Your task to perform on an android device: Open Youtube and go to the subscriptions tab Image 0: 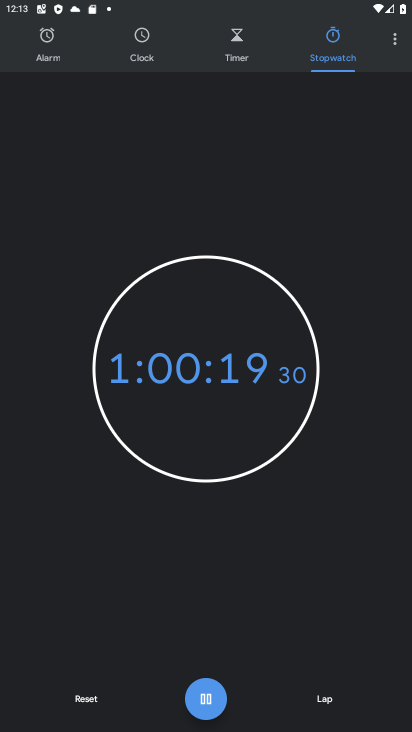
Step 0: press home button
Your task to perform on an android device: Open Youtube and go to the subscriptions tab Image 1: 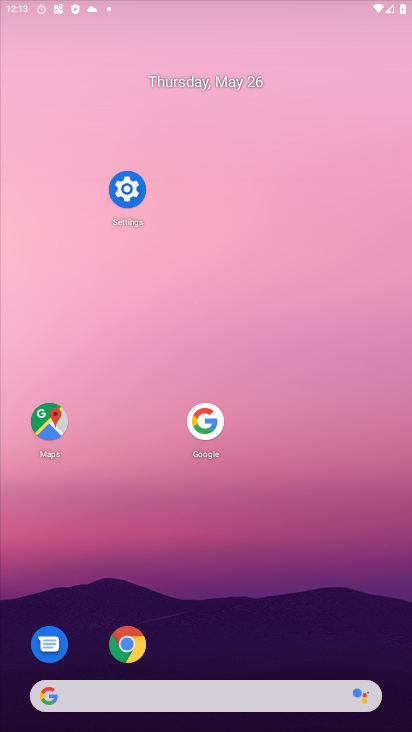
Step 1: drag from (236, 607) to (344, 74)
Your task to perform on an android device: Open Youtube and go to the subscriptions tab Image 2: 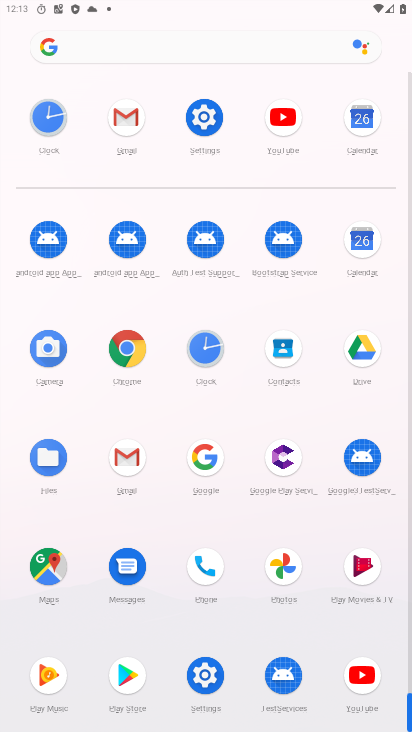
Step 2: click (359, 683)
Your task to perform on an android device: Open Youtube and go to the subscriptions tab Image 3: 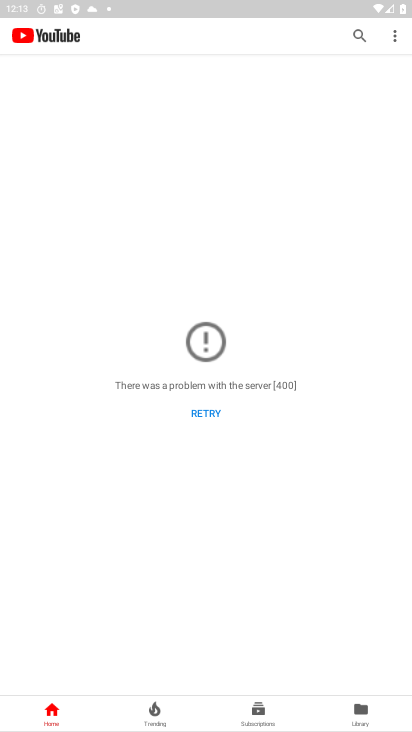
Step 3: click (240, 718)
Your task to perform on an android device: Open Youtube and go to the subscriptions tab Image 4: 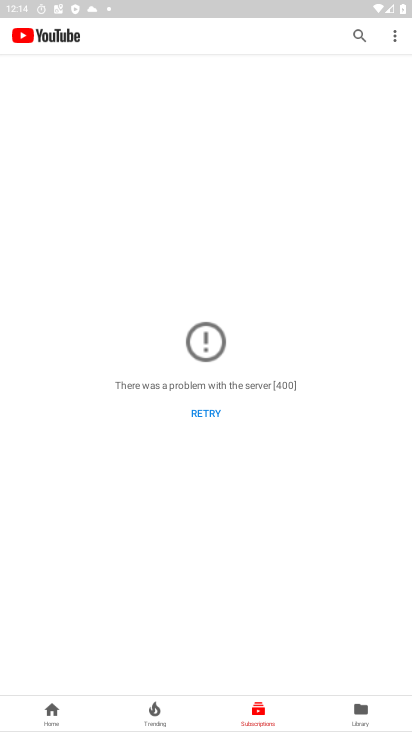
Step 4: task complete